Your task to perform on an android device: see sites visited before in the chrome app Image 0: 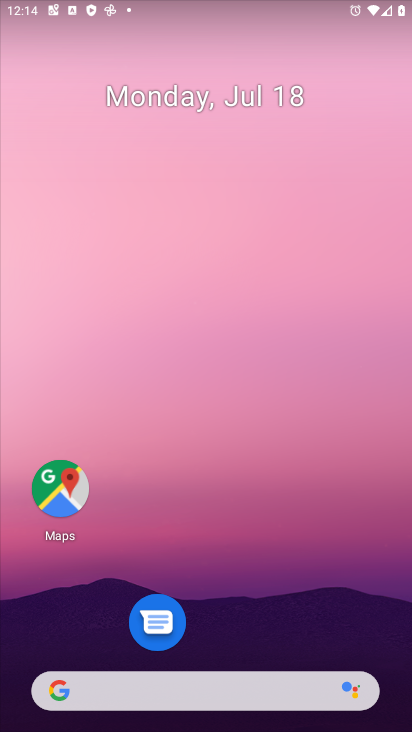
Step 0: drag from (171, 716) to (390, 11)
Your task to perform on an android device: see sites visited before in the chrome app Image 1: 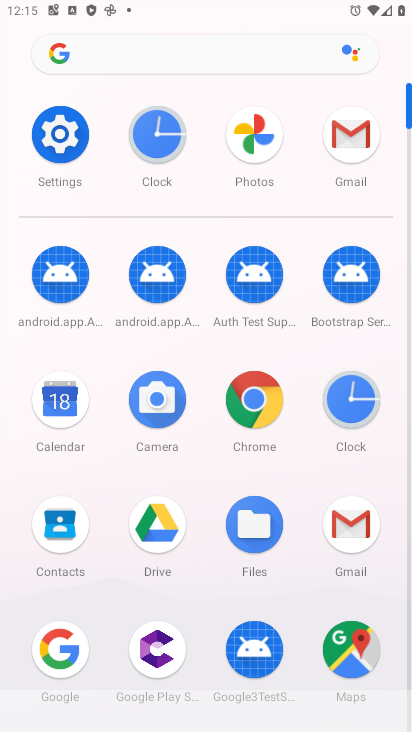
Step 1: click (255, 404)
Your task to perform on an android device: see sites visited before in the chrome app Image 2: 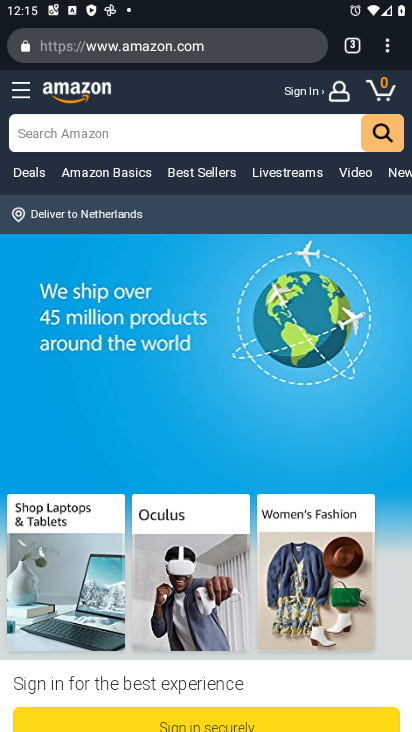
Step 2: click (388, 47)
Your task to perform on an android device: see sites visited before in the chrome app Image 3: 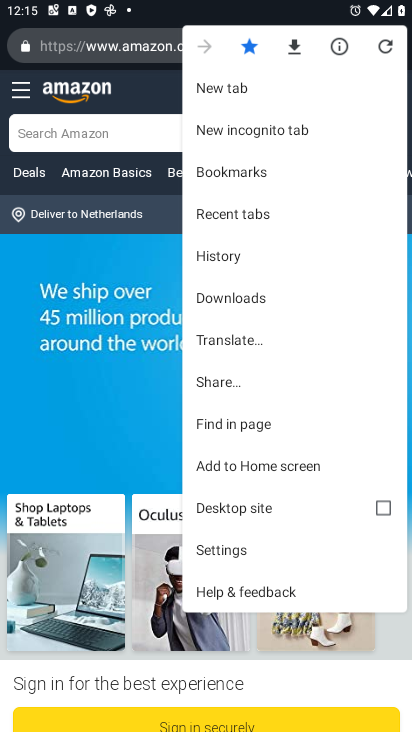
Step 3: click (267, 209)
Your task to perform on an android device: see sites visited before in the chrome app Image 4: 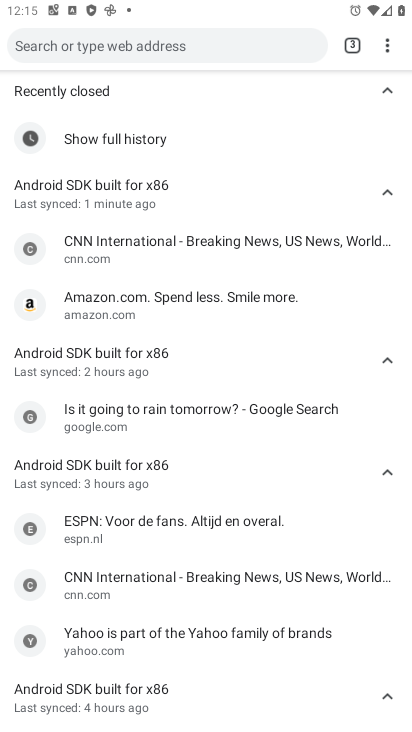
Step 4: task complete